Your task to perform on an android device: toggle location history Image 0: 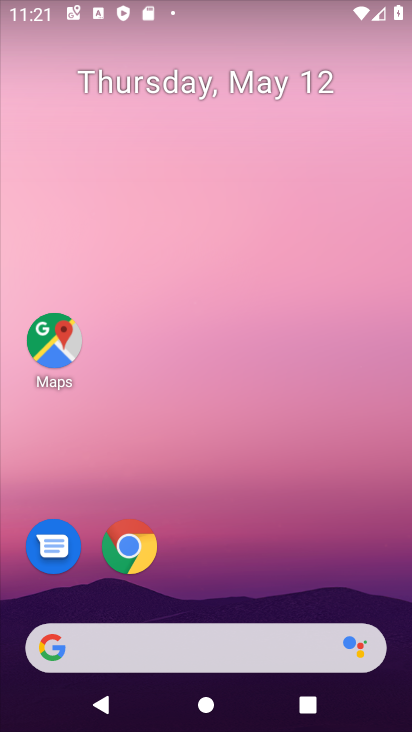
Step 0: drag from (279, 641) to (314, 281)
Your task to perform on an android device: toggle location history Image 1: 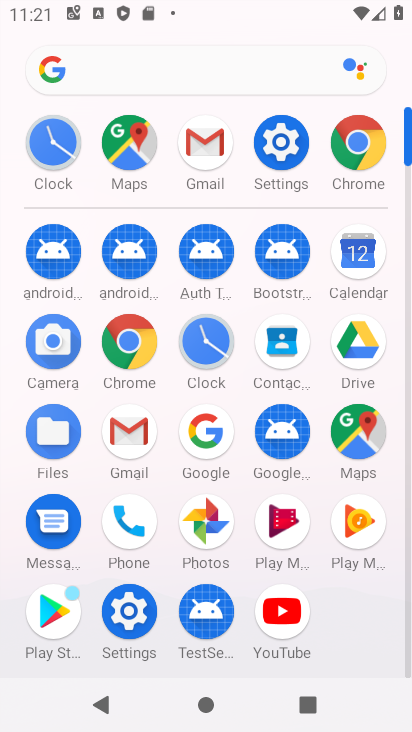
Step 1: click (301, 159)
Your task to perform on an android device: toggle location history Image 2: 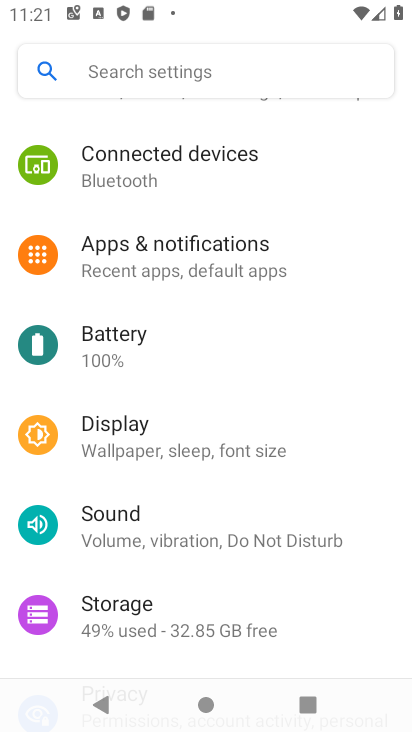
Step 2: click (229, 76)
Your task to perform on an android device: toggle location history Image 3: 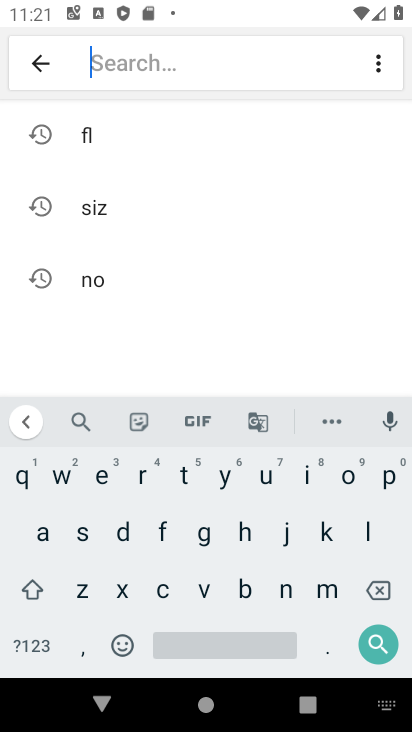
Step 3: click (358, 535)
Your task to perform on an android device: toggle location history Image 4: 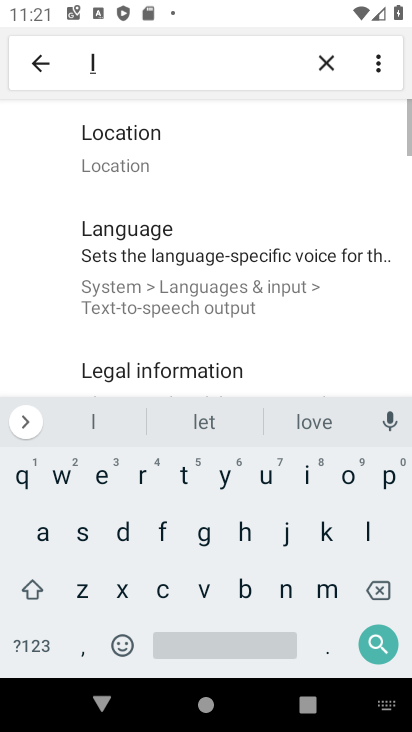
Step 4: click (343, 480)
Your task to perform on an android device: toggle location history Image 5: 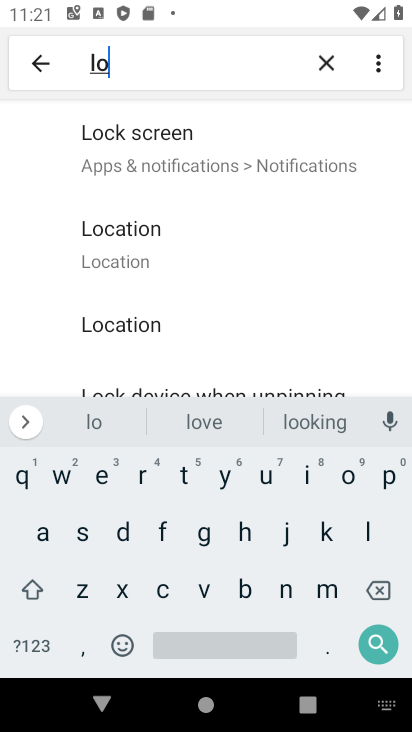
Step 5: click (126, 230)
Your task to perform on an android device: toggle location history Image 6: 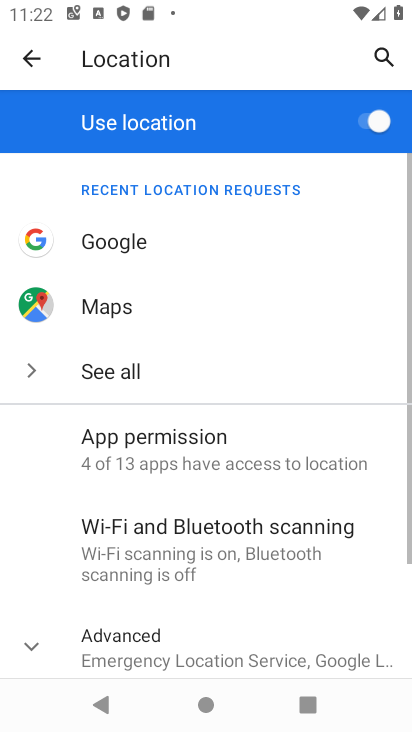
Step 6: click (122, 650)
Your task to perform on an android device: toggle location history Image 7: 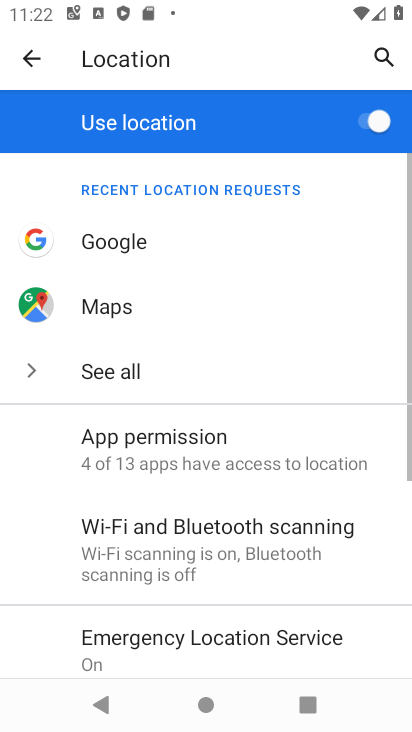
Step 7: drag from (228, 608) to (248, 320)
Your task to perform on an android device: toggle location history Image 8: 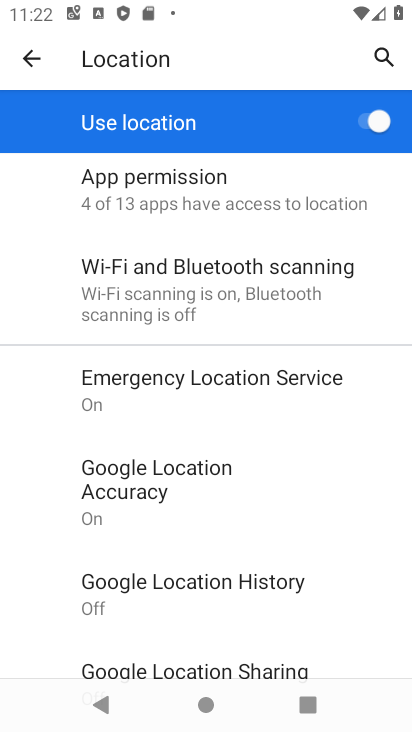
Step 8: click (243, 586)
Your task to perform on an android device: toggle location history Image 9: 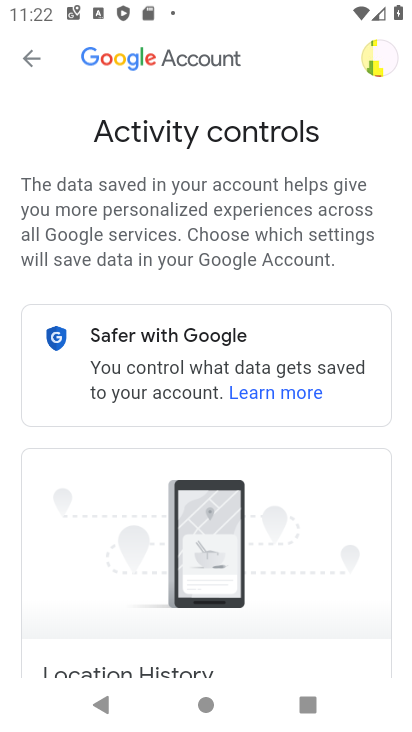
Step 9: task complete